Your task to perform on an android device: turn off sleep mode Image 0: 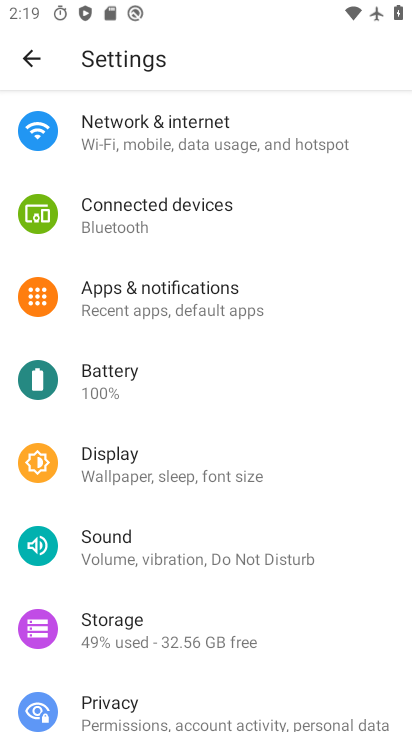
Step 0: drag from (196, 684) to (248, 161)
Your task to perform on an android device: turn off sleep mode Image 1: 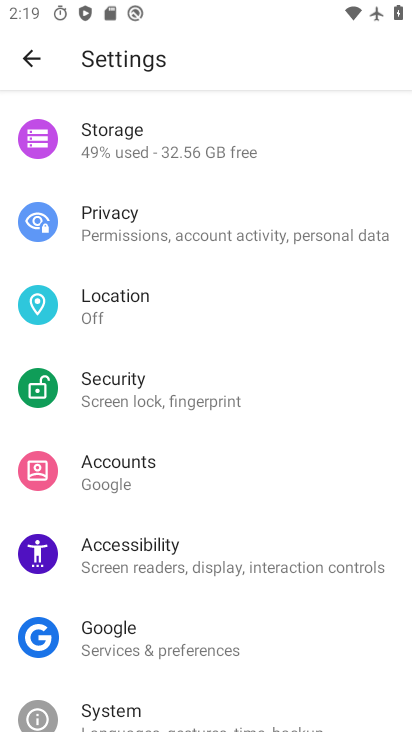
Step 1: drag from (237, 682) to (266, 250)
Your task to perform on an android device: turn off sleep mode Image 2: 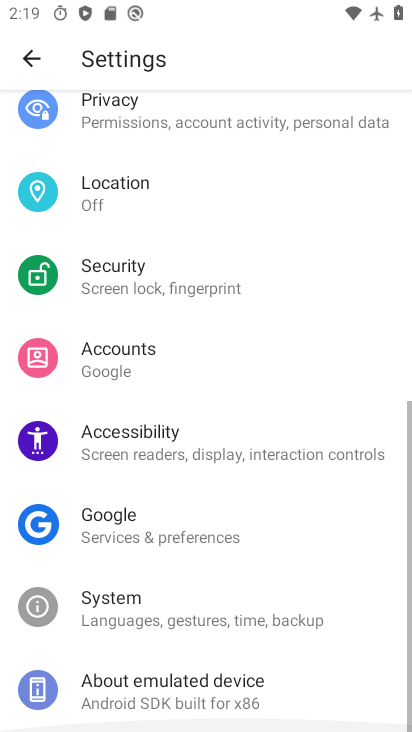
Step 2: drag from (225, 206) to (212, 583)
Your task to perform on an android device: turn off sleep mode Image 3: 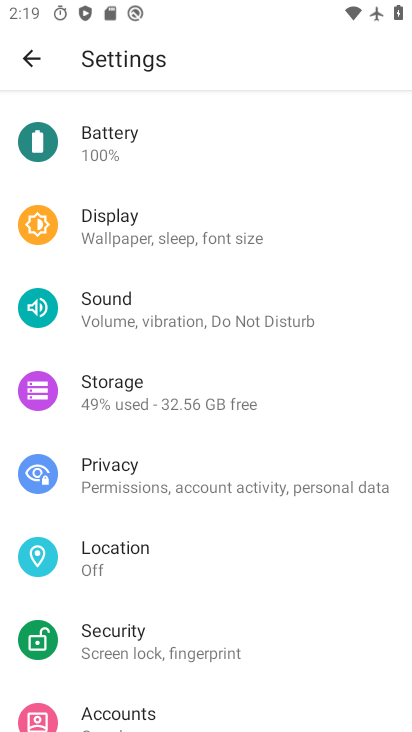
Step 3: drag from (205, 200) to (222, 610)
Your task to perform on an android device: turn off sleep mode Image 4: 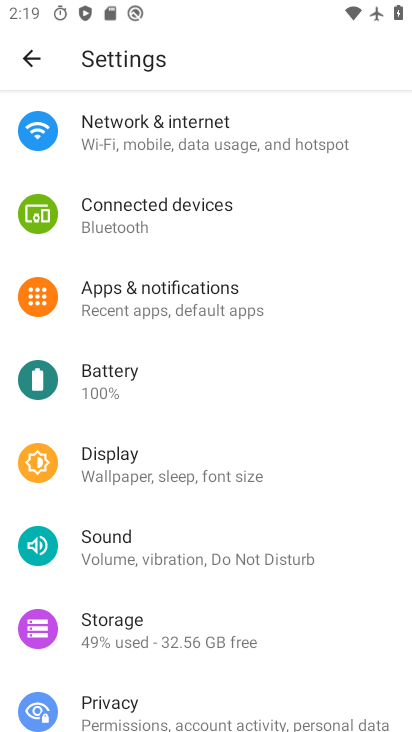
Step 4: click (203, 478)
Your task to perform on an android device: turn off sleep mode Image 5: 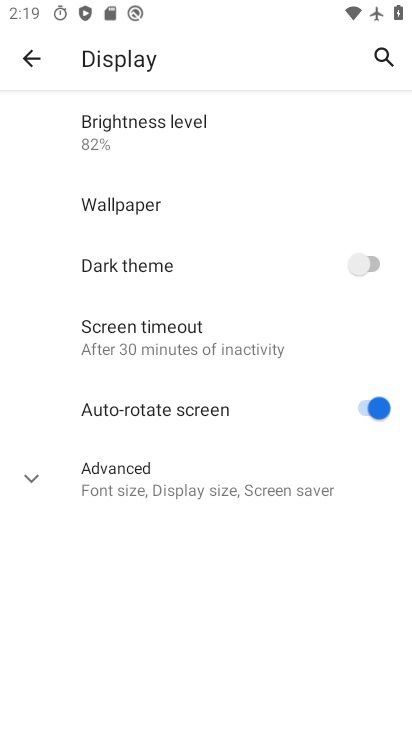
Step 5: task complete